Your task to perform on an android device: Open calendar and show me the fourth week of next month Image 0: 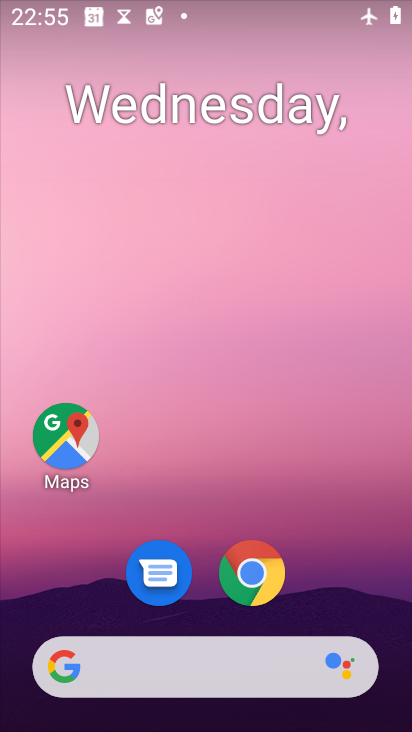
Step 0: drag from (298, 573) to (284, 249)
Your task to perform on an android device: Open calendar and show me the fourth week of next month Image 1: 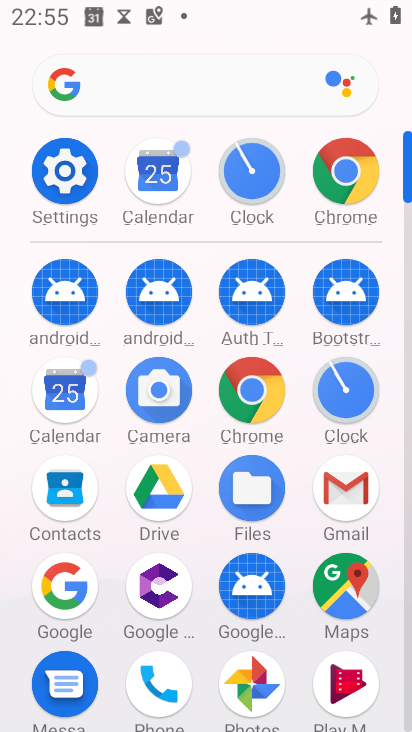
Step 1: click (72, 383)
Your task to perform on an android device: Open calendar and show me the fourth week of next month Image 2: 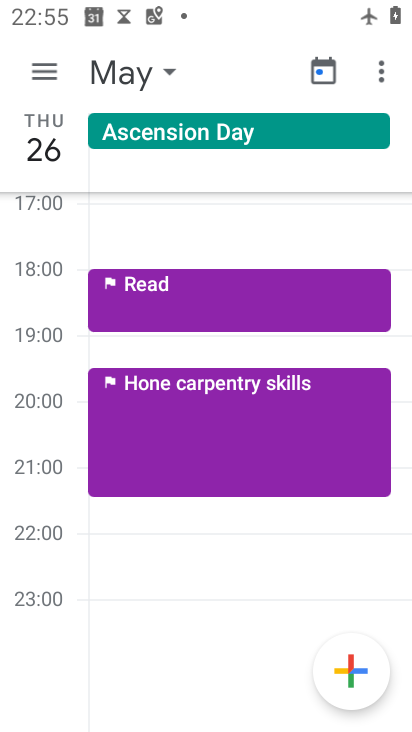
Step 2: click (40, 80)
Your task to perform on an android device: Open calendar and show me the fourth week of next month Image 3: 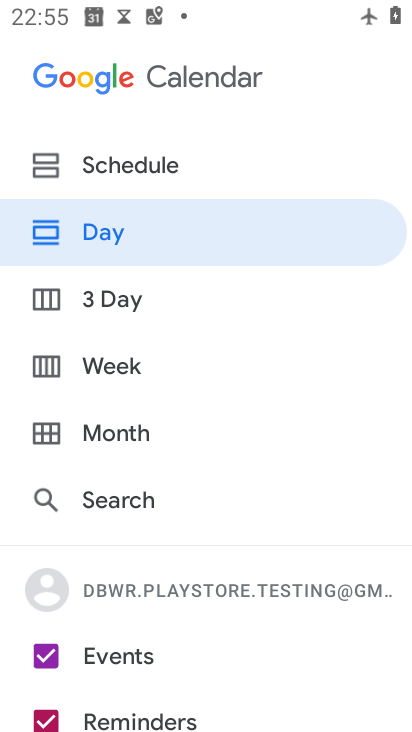
Step 3: click (92, 440)
Your task to perform on an android device: Open calendar and show me the fourth week of next month Image 4: 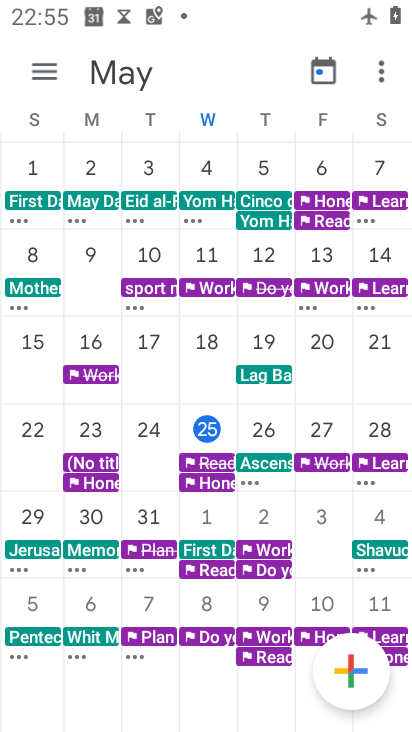
Step 4: task complete